Your task to perform on an android device: check battery use Image 0: 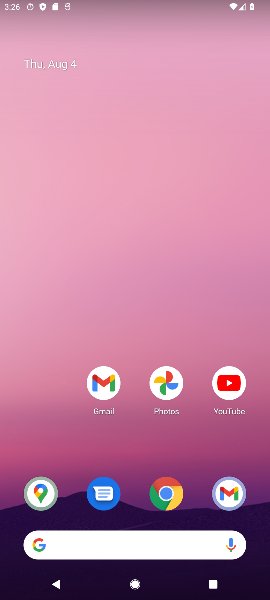
Step 0: drag from (45, 579) to (150, 26)
Your task to perform on an android device: check battery use Image 1: 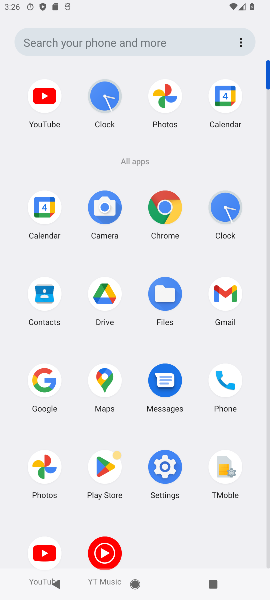
Step 1: click (168, 469)
Your task to perform on an android device: check battery use Image 2: 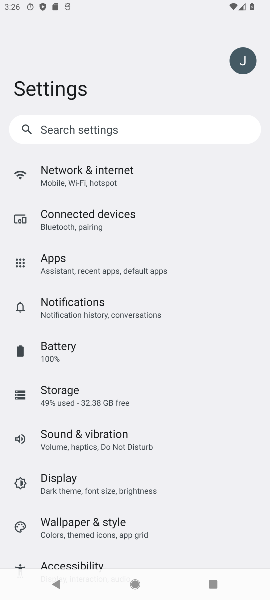
Step 2: click (54, 351)
Your task to perform on an android device: check battery use Image 3: 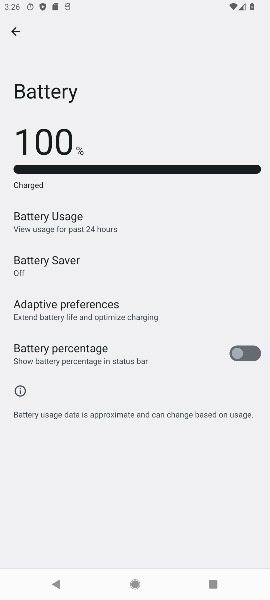
Step 3: task complete